Your task to perform on an android device: Search for Italian restaurants on Maps Image 0: 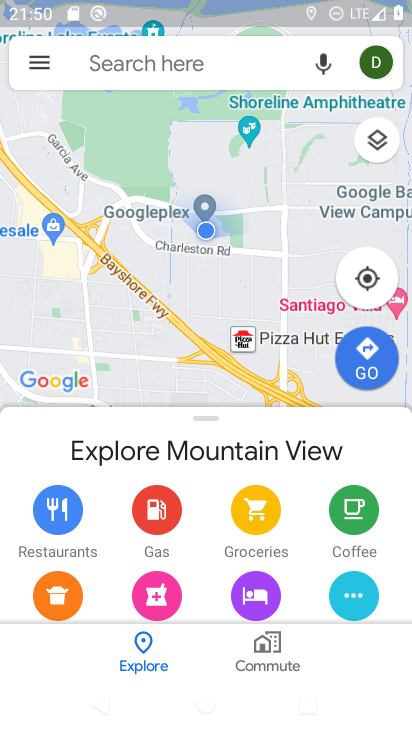
Step 0: press home button
Your task to perform on an android device: Search for Italian restaurants on Maps Image 1: 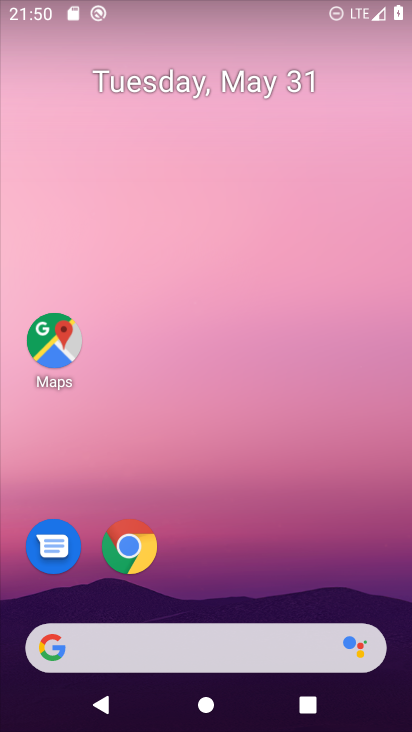
Step 1: click (48, 364)
Your task to perform on an android device: Search for Italian restaurants on Maps Image 2: 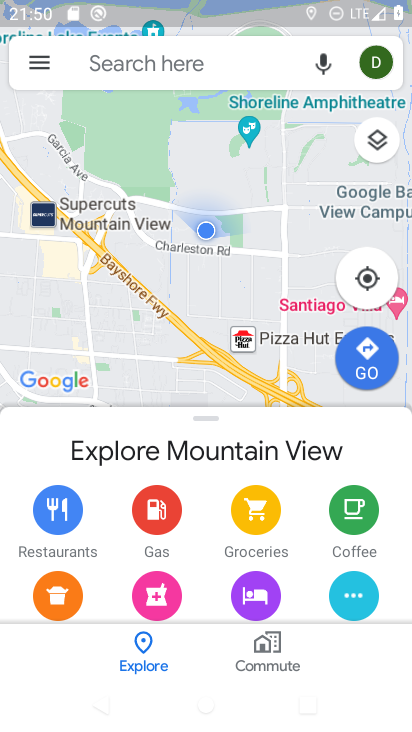
Step 2: click (102, 63)
Your task to perform on an android device: Search for Italian restaurants on Maps Image 3: 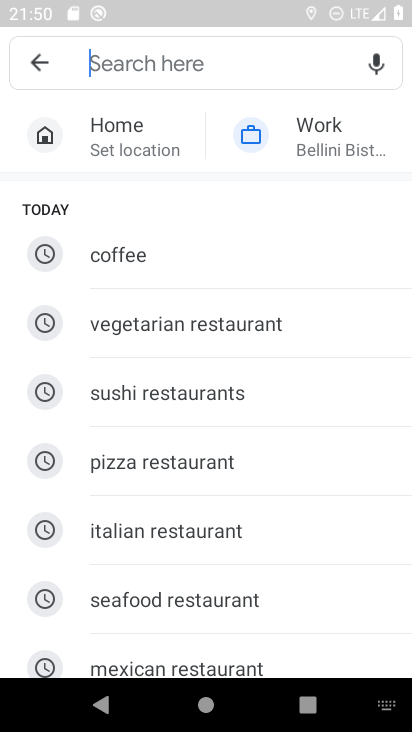
Step 3: type "Italian restaurants"
Your task to perform on an android device: Search for Italian restaurants on Maps Image 4: 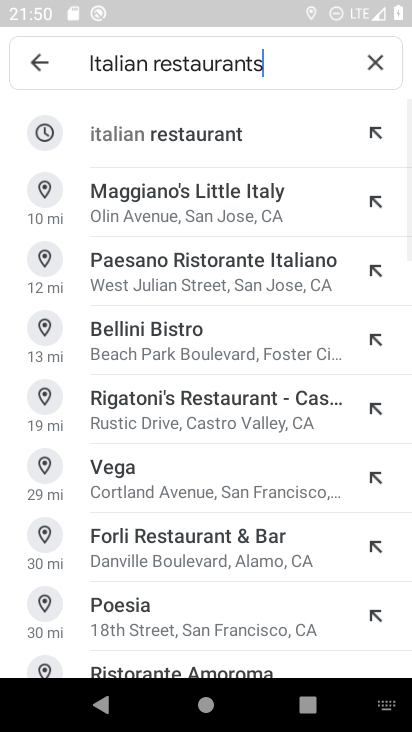
Step 4: click (133, 133)
Your task to perform on an android device: Search for Italian restaurants on Maps Image 5: 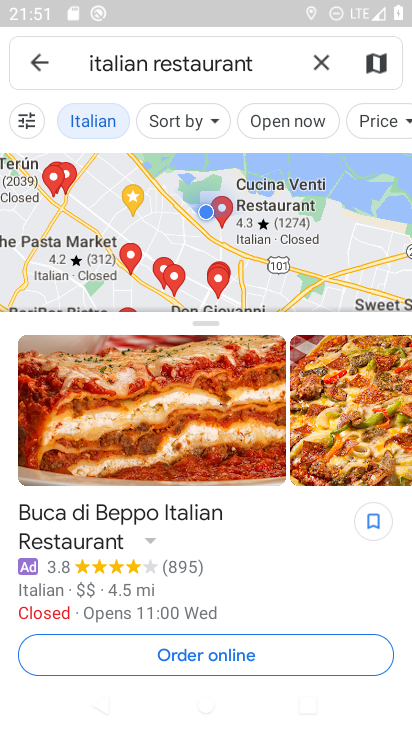
Step 5: task complete